Your task to perform on an android device: empty trash in google photos Image 0: 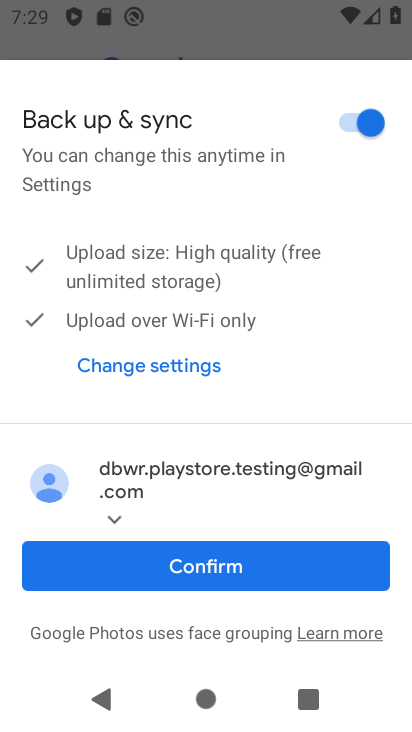
Step 0: press home button
Your task to perform on an android device: empty trash in google photos Image 1: 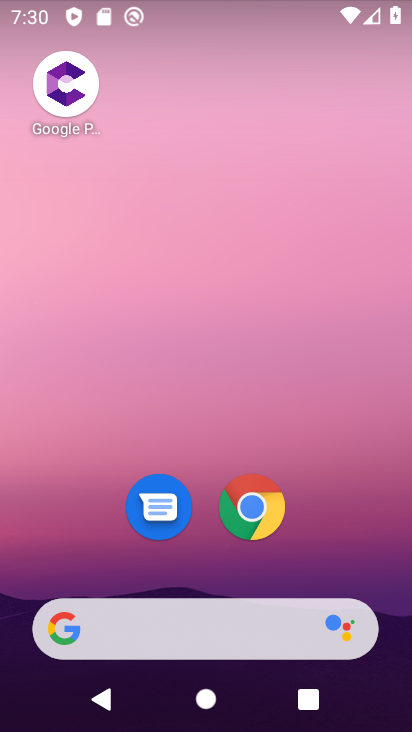
Step 1: type "ww"
Your task to perform on an android device: empty trash in google photos Image 2: 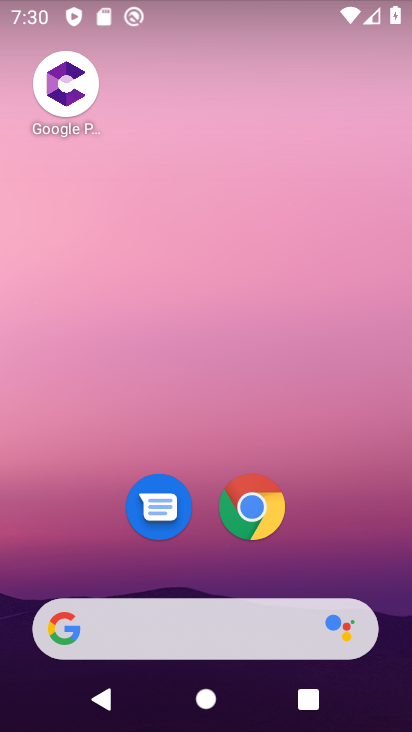
Step 2: click (328, 185)
Your task to perform on an android device: empty trash in google photos Image 3: 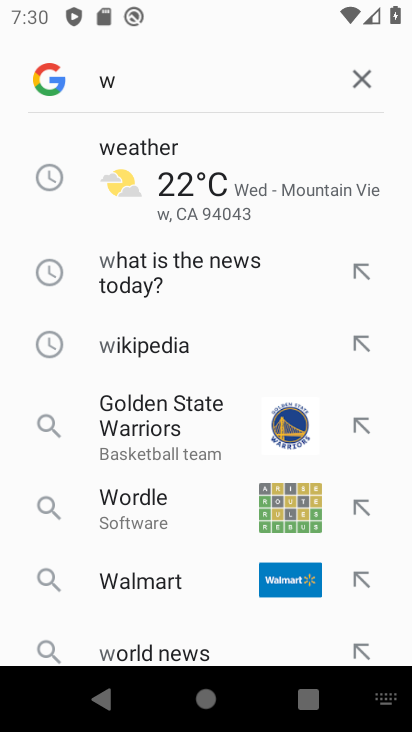
Step 3: click (349, 77)
Your task to perform on an android device: empty trash in google photos Image 4: 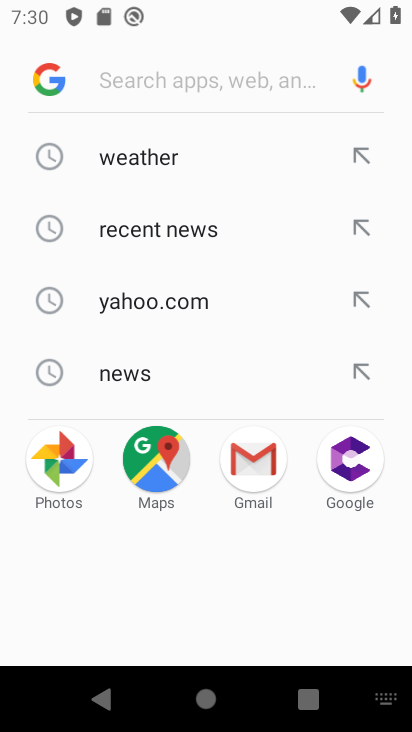
Step 4: press home button
Your task to perform on an android device: empty trash in google photos Image 5: 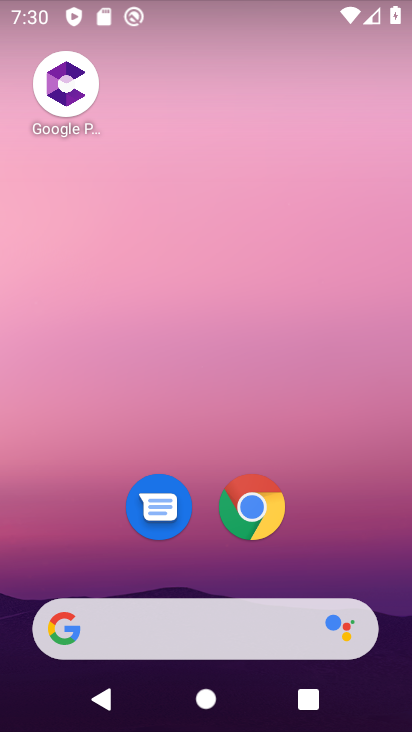
Step 5: drag from (310, 565) to (305, 217)
Your task to perform on an android device: empty trash in google photos Image 6: 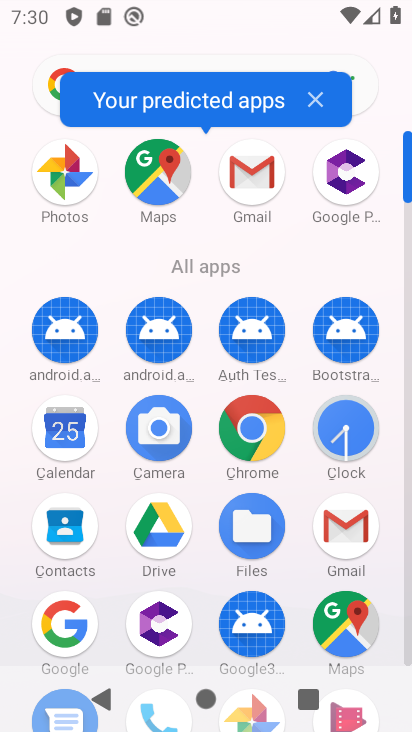
Step 6: drag from (252, 654) to (333, 312)
Your task to perform on an android device: empty trash in google photos Image 7: 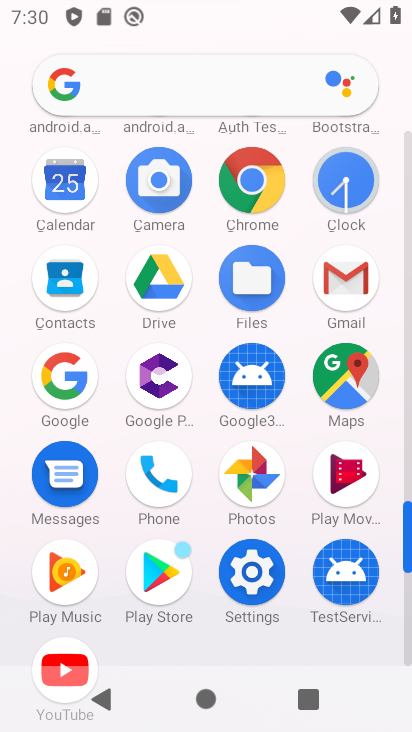
Step 7: click (251, 478)
Your task to perform on an android device: empty trash in google photos Image 8: 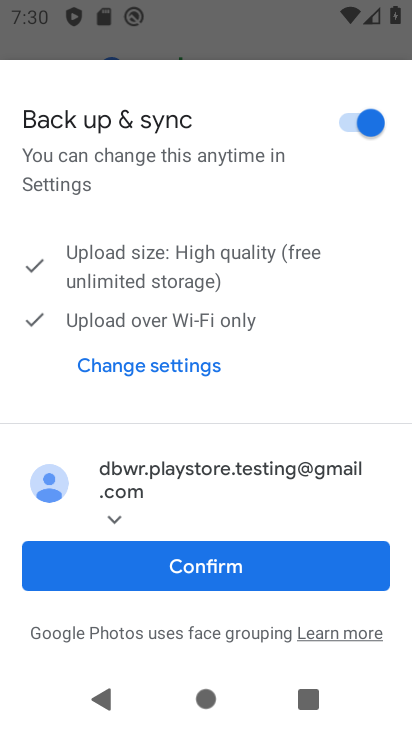
Step 8: click (282, 576)
Your task to perform on an android device: empty trash in google photos Image 9: 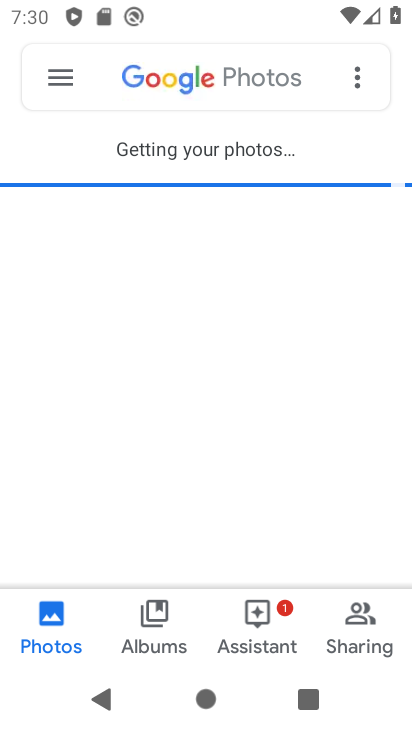
Step 9: click (49, 76)
Your task to perform on an android device: empty trash in google photos Image 10: 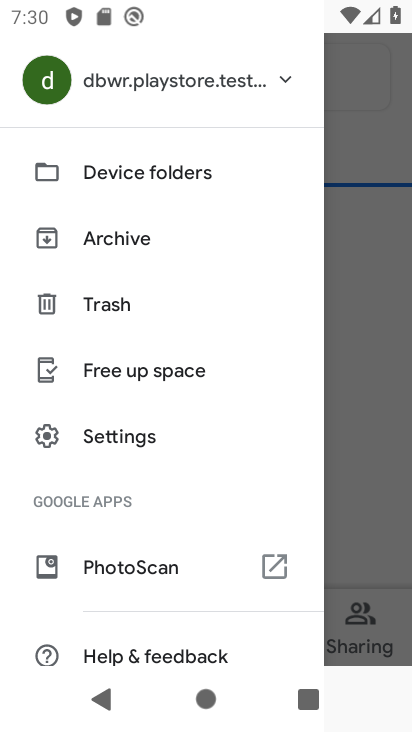
Step 10: click (115, 311)
Your task to perform on an android device: empty trash in google photos Image 11: 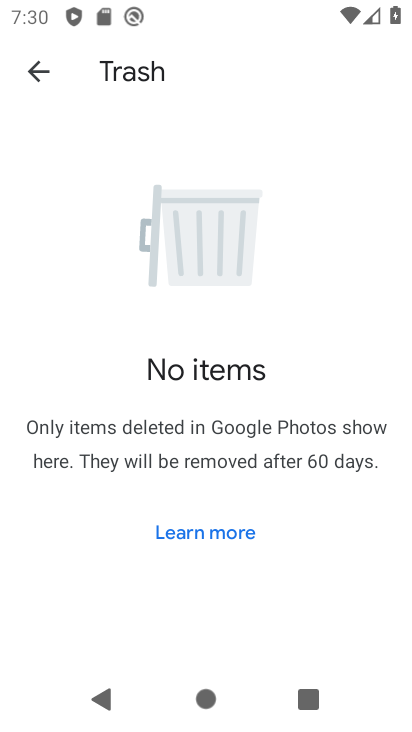
Step 11: task complete